Your task to perform on an android device: change notification settings in the gmail app Image 0: 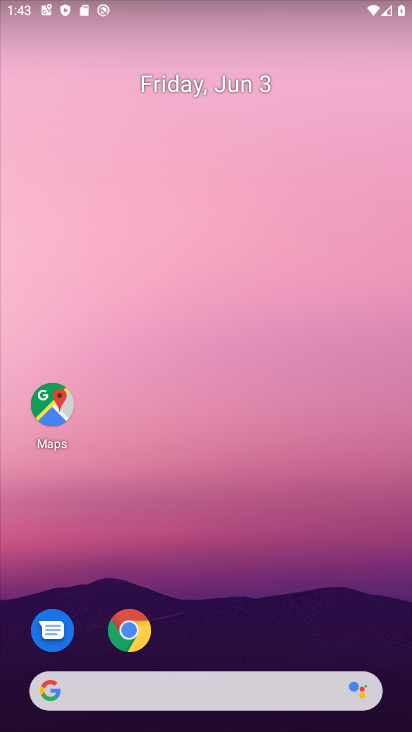
Step 0: drag from (206, 731) to (153, 140)
Your task to perform on an android device: change notification settings in the gmail app Image 1: 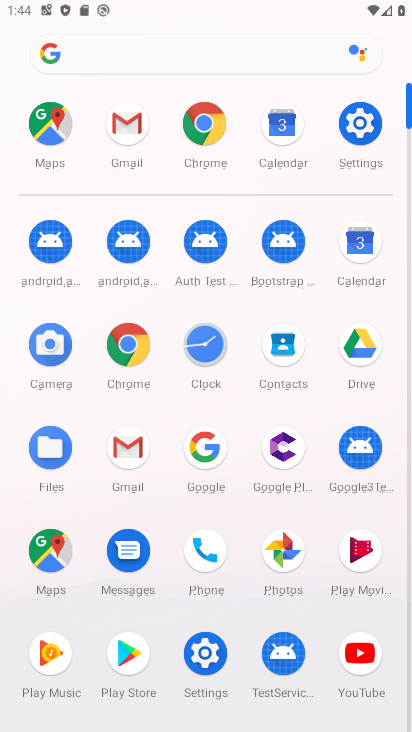
Step 1: click (130, 456)
Your task to perform on an android device: change notification settings in the gmail app Image 2: 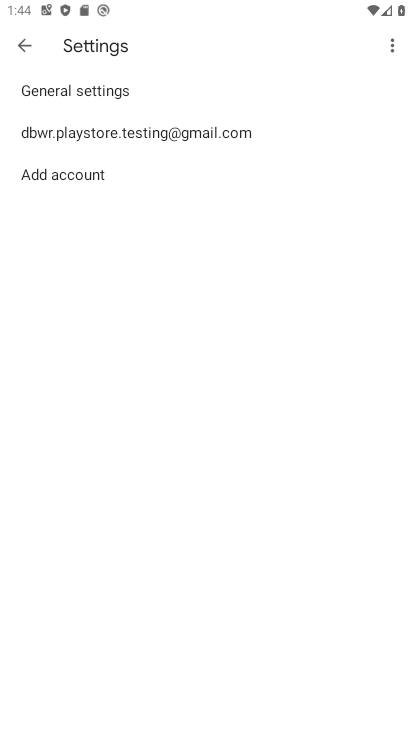
Step 2: click (159, 130)
Your task to perform on an android device: change notification settings in the gmail app Image 3: 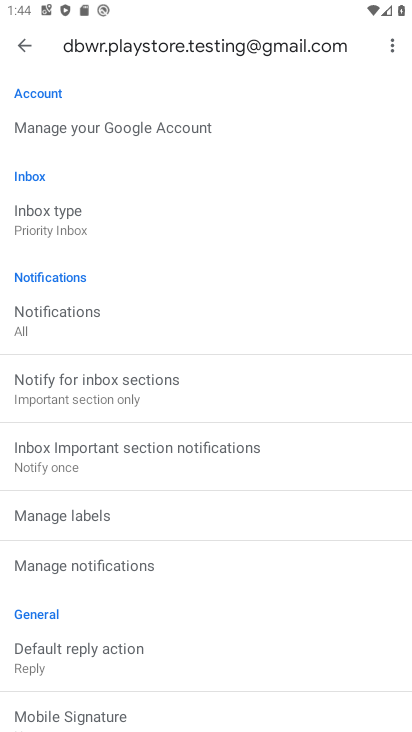
Step 3: click (68, 312)
Your task to perform on an android device: change notification settings in the gmail app Image 4: 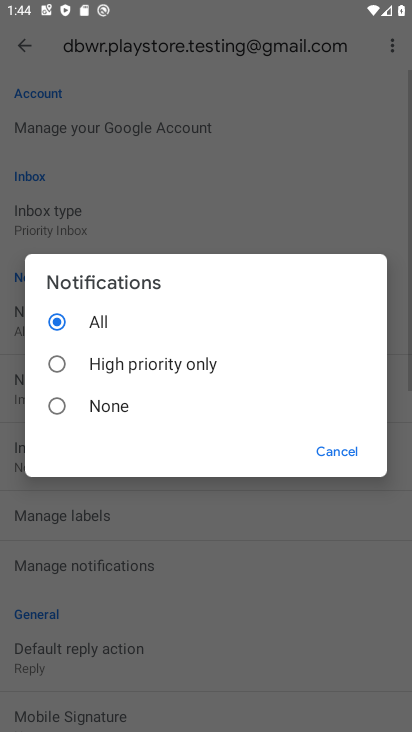
Step 4: click (61, 412)
Your task to perform on an android device: change notification settings in the gmail app Image 5: 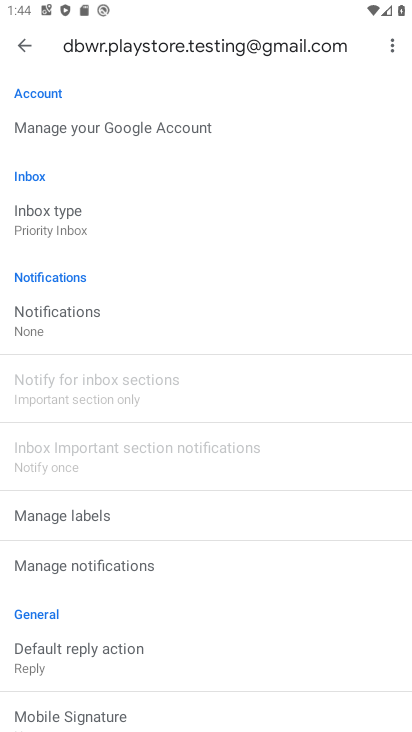
Step 5: task complete